Your task to perform on an android device: Open location settings Image 0: 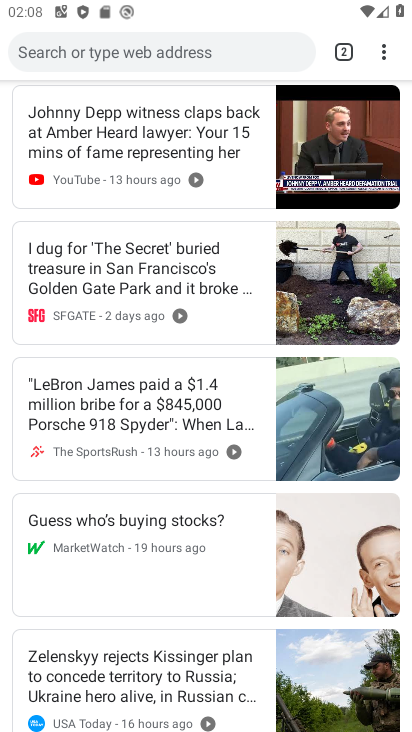
Step 0: press home button
Your task to perform on an android device: Open location settings Image 1: 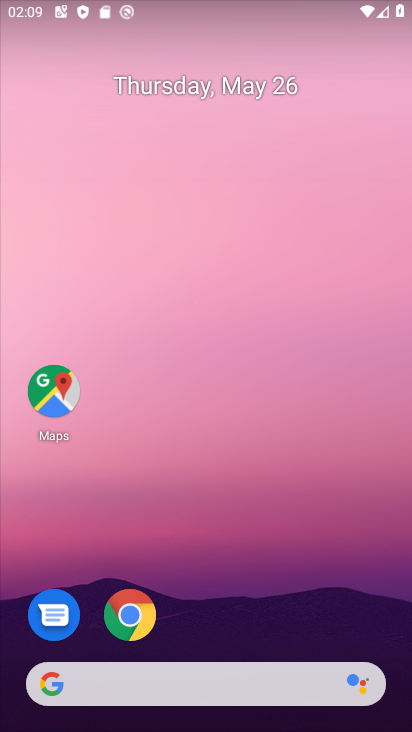
Step 1: click (54, 387)
Your task to perform on an android device: Open location settings Image 2: 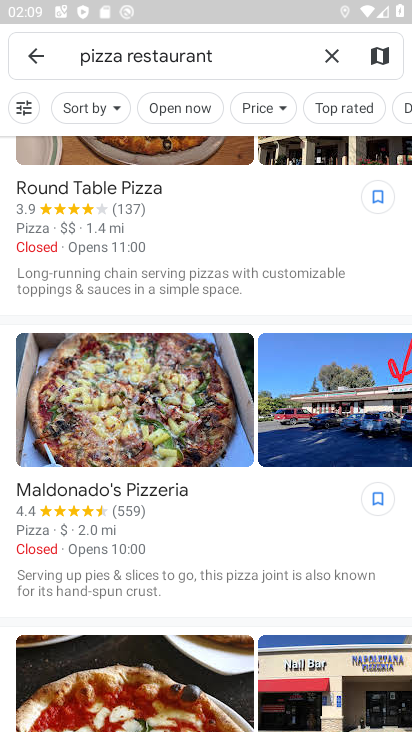
Step 2: click (28, 53)
Your task to perform on an android device: Open location settings Image 3: 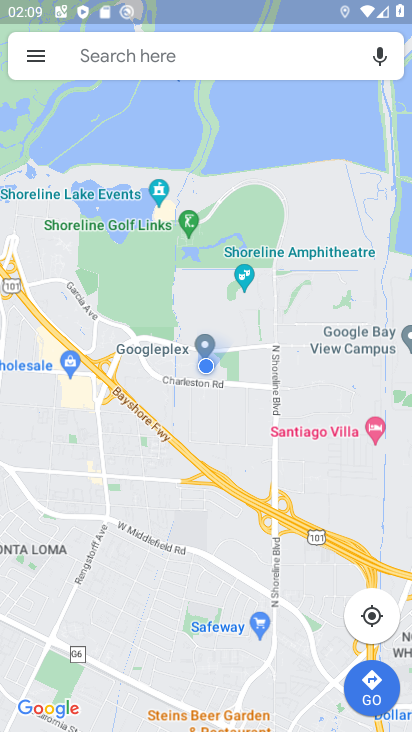
Step 3: click (32, 46)
Your task to perform on an android device: Open location settings Image 4: 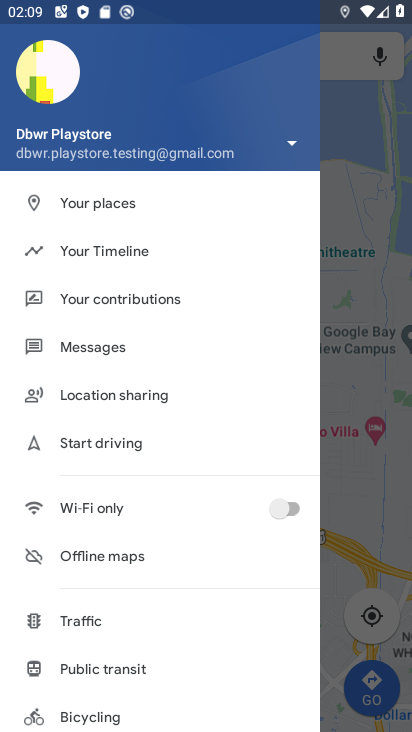
Step 4: drag from (168, 670) to (202, 158)
Your task to perform on an android device: Open location settings Image 5: 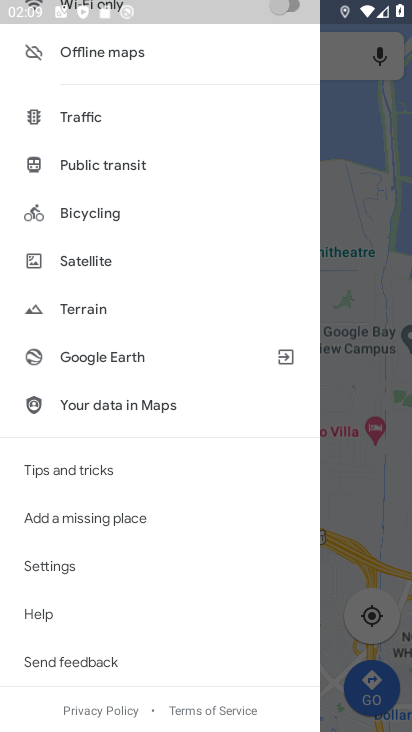
Step 5: click (79, 569)
Your task to perform on an android device: Open location settings Image 6: 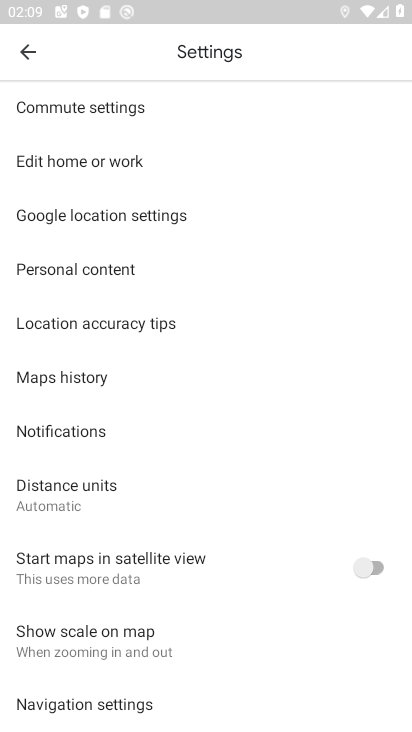
Step 6: click (165, 211)
Your task to perform on an android device: Open location settings Image 7: 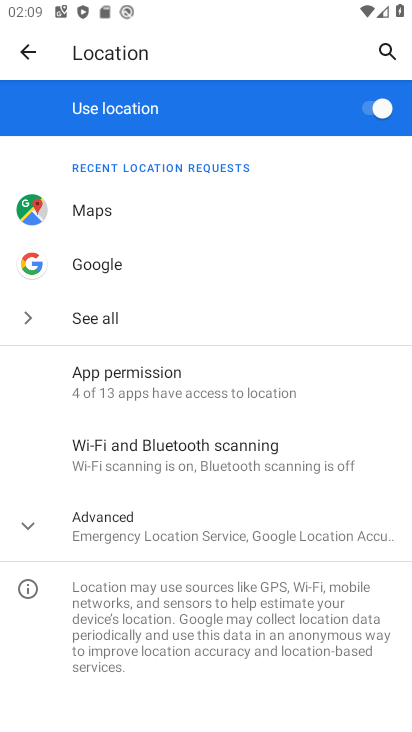
Step 7: click (26, 525)
Your task to perform on an android device: Open location settings Image 8: 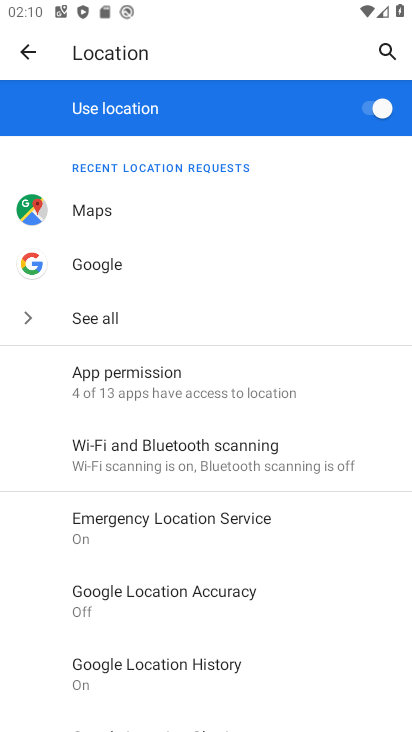
Step 8: task complete